Your task to perform on an android device: Open battery settings Image 0: 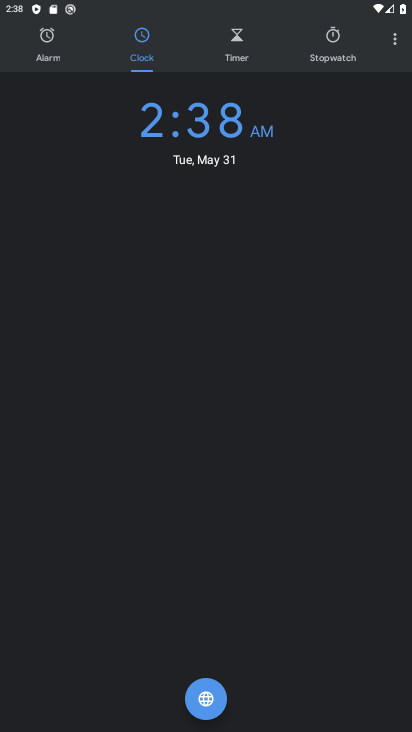
Step 0: press home button
Your task to perform on an android device: Open battery settings Image 1: 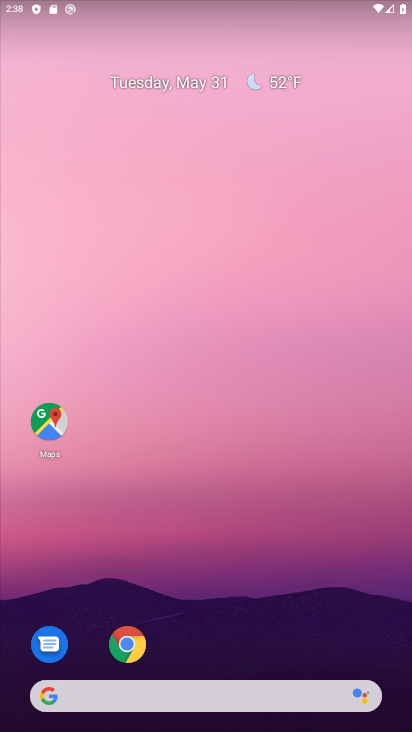
Step 1: drag from (248, 629) to (301, 8)
Your task to perform on an android device: Open battery settings Image 2: 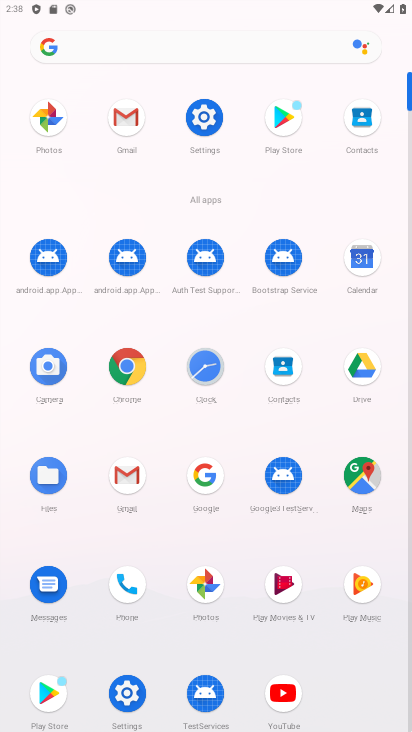
Step 2: click (208, 119)
Your task to perform on an android device: Open battery settings Image 3: 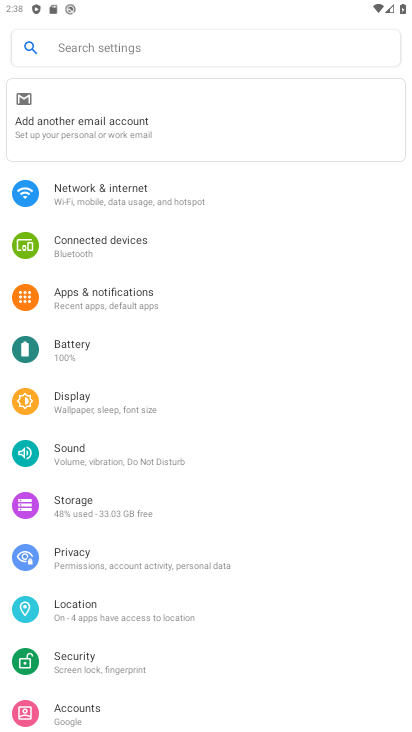
Step 3: click (90, 350)
Your task to perform on an android device: Open battery settings Image 4: 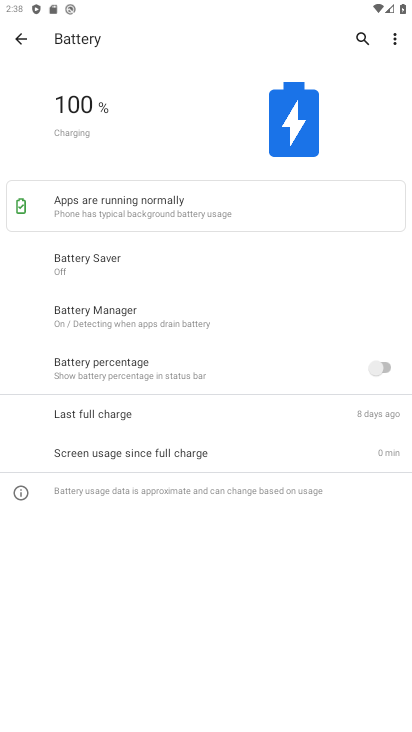
Step 4: task complete